Your task to perform on an android device: open a new tab in the chrome app Image 0: 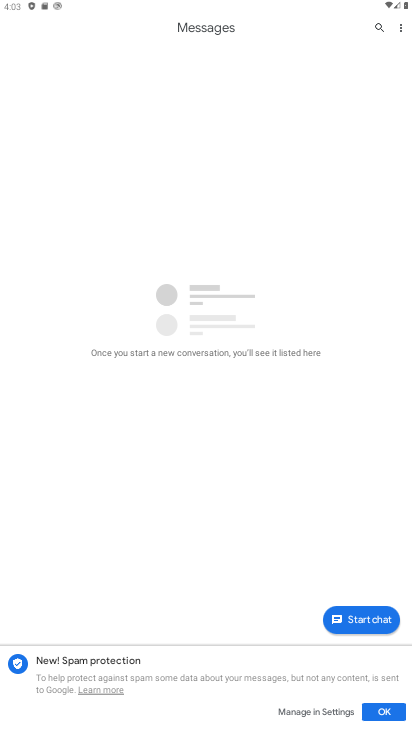
Step 0: press home button
Your task to perform on an android device: open a new tab in the chrome app Image 1: 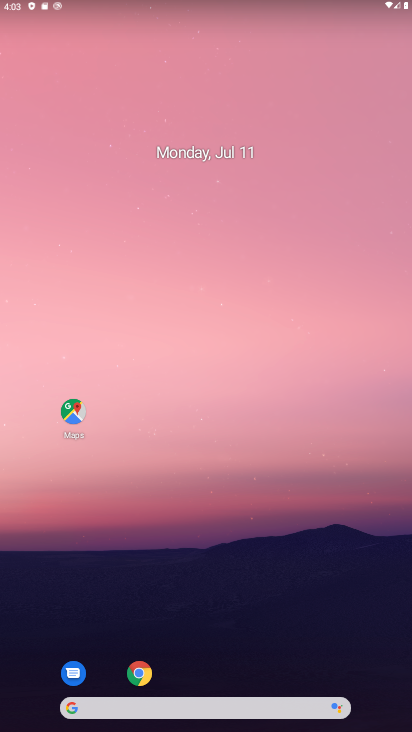
Step 1: drag from (385, 682) to (95, 155)
Your task to perform on an android device: open a new tab in the chrome app Image 2: 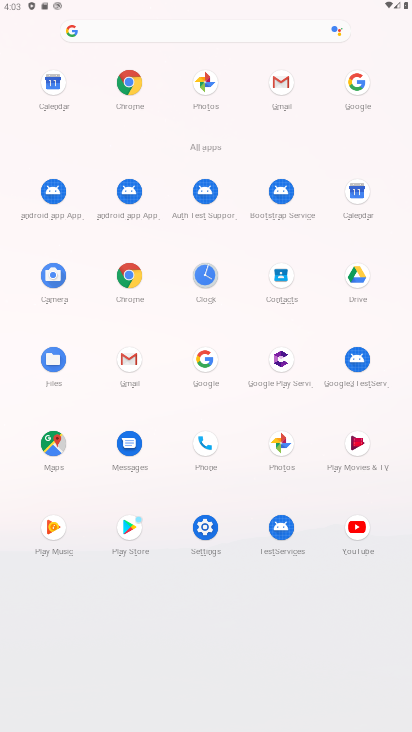
Step 2: click (130, 281)
Your task to perform on an android device: open a new tab in the chrome app Image 3: 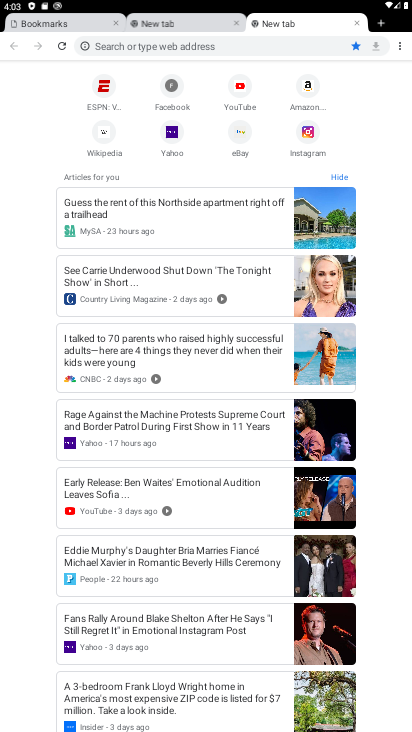
Step 3: click (379, 25)
Your task to perform on an android device: open a new tab in the chrome app Image 4: 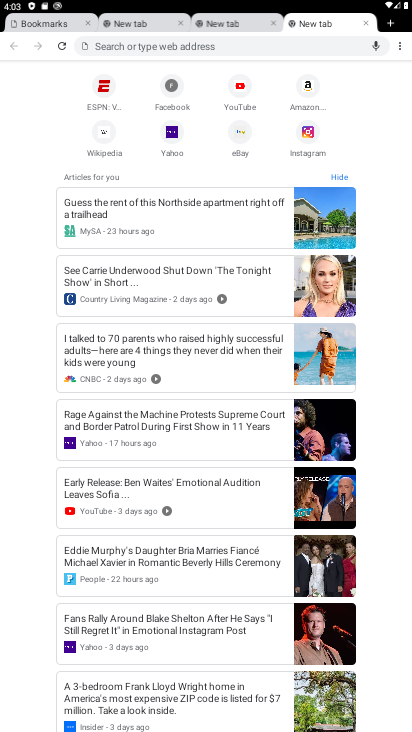
Step 4: task complete